Your task to perform on an android device: turn off smart reply in the gmail app Image 0: 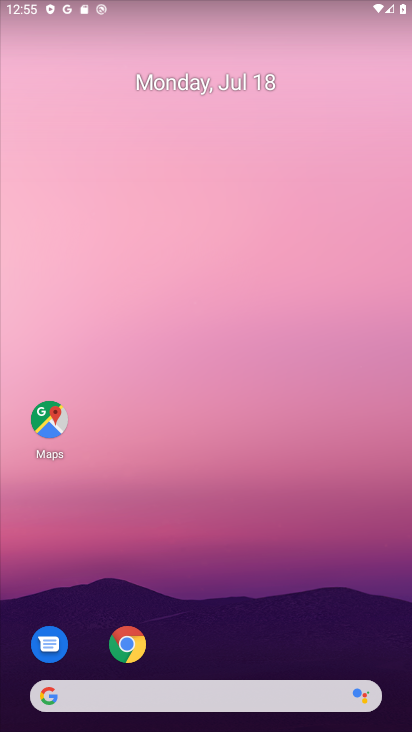
Step 0: drag from (209, 680) to (217, 52)
Your task to perform on an android device: turn off smart reply in the gmail app Image 1: 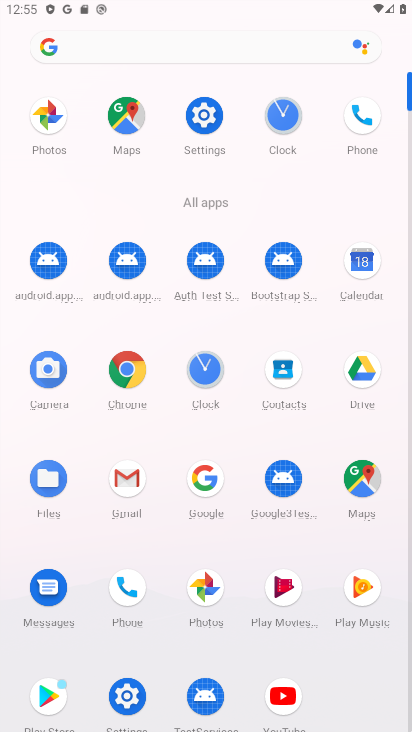
Step 1: click (128, 496)
Your task to perform on an android device: turn off smart reply in the gmail app Image 2: 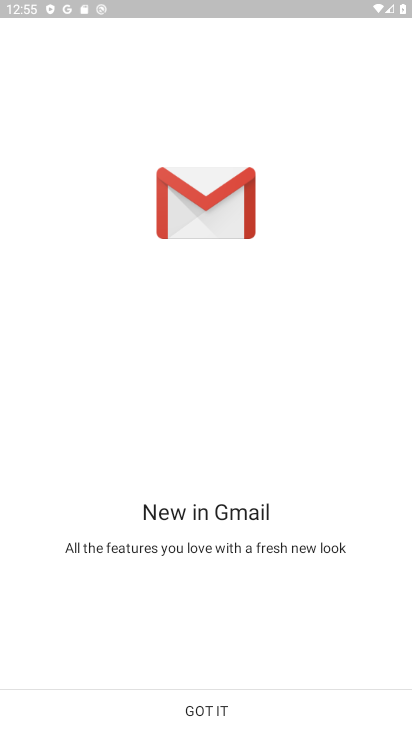
Step 2: click (194, 708)
Your task to perform on an android device: turn off smart reply in the gmail app Image 3: 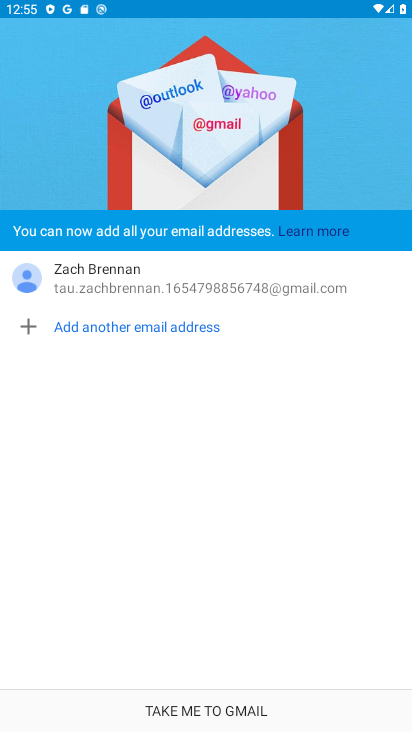
Step 3: click (194, 708)
Your task to perform on an android device: turn off smart reply in the gmail app Image 4: 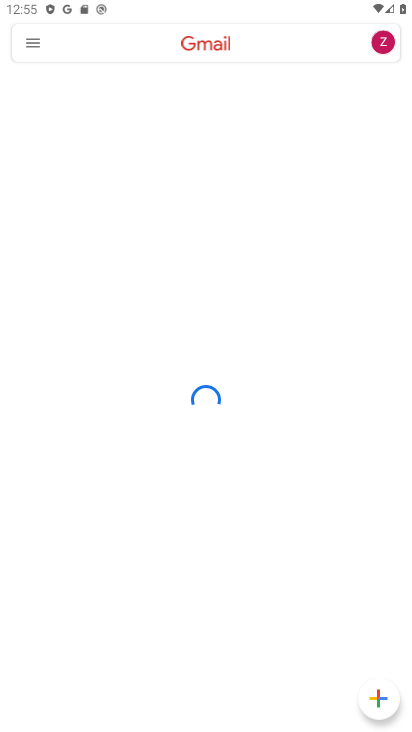
Step 4: click (28, 48)
Your task to perform on an android device: turn off smart reply in the gmail app Image 5: 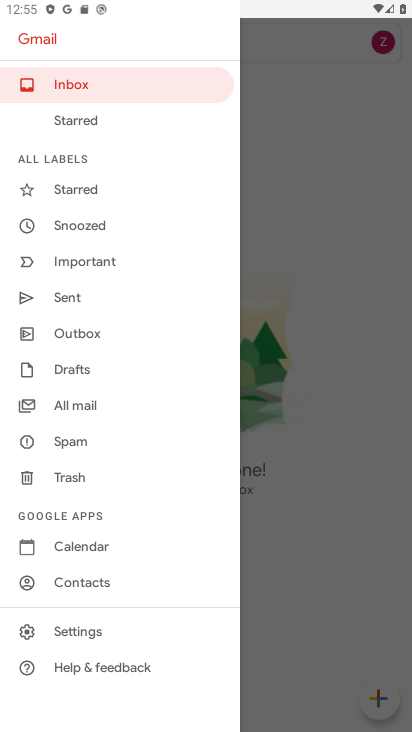
Step 5: click (83, 623)
Your task to perform on an android device: turn off smart reply in the gmail app Image 6: 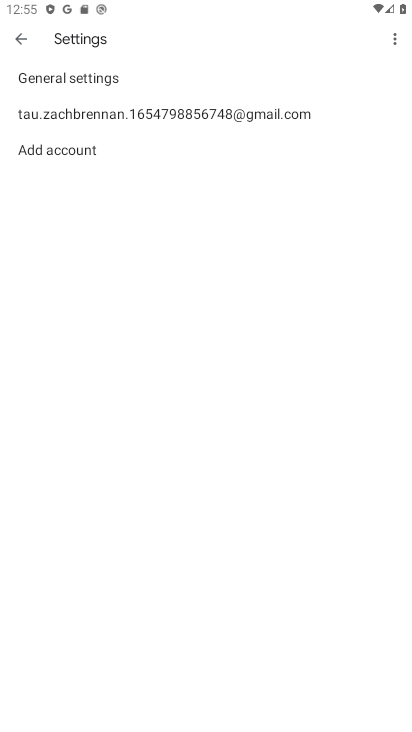
Step 6: click (219, 126)
Your task to perform on an android device: turn off smart reply in the gmail app Image 7: 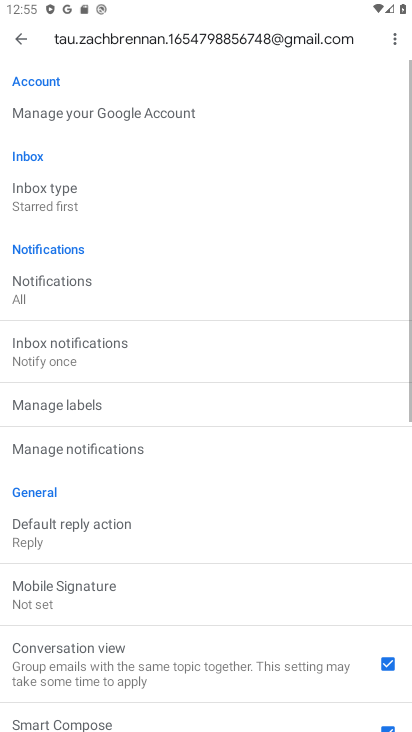
Step 7: drag from (150, 593) to (236, 163)
Your task to perform on an android device: turn off smart reply in the gmail app Image 8: 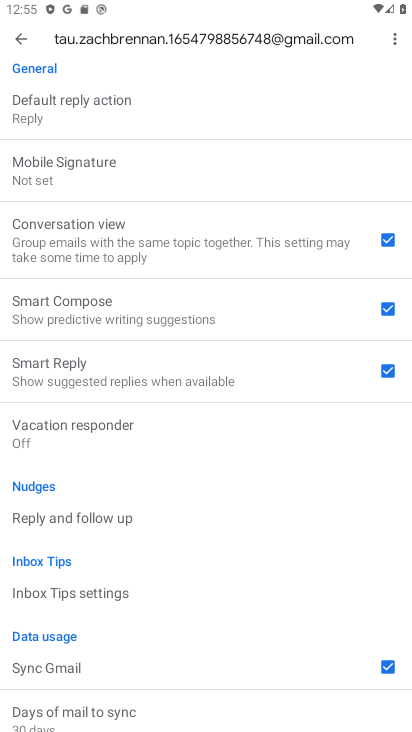
Step 8: click (386, 365)
Your task to perform on an android device: turn off smart reply in the gmail app Image 9: 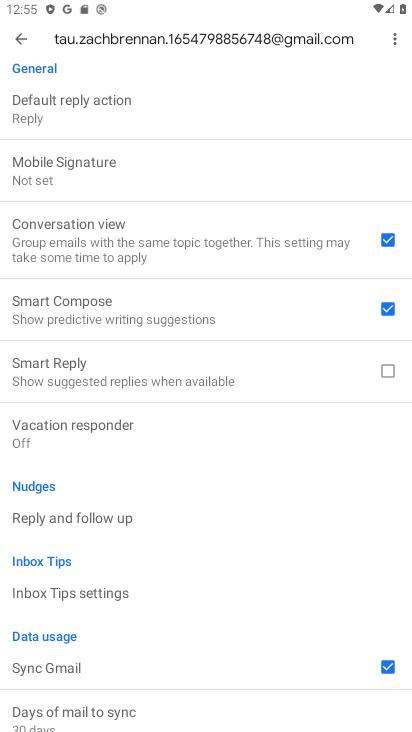
Step 9: task complete